Your task to perform on an android device: Open sound settings Image 0: 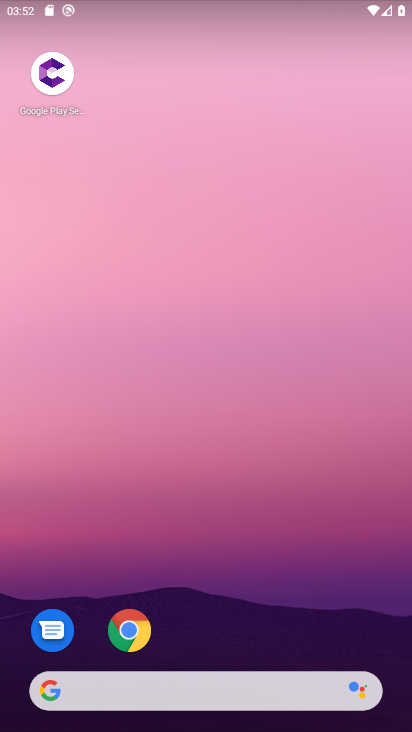
Step 0: drag from (206, 658) to (268, 244)
Your task to perform on an android device: Open sound settings Image 1: 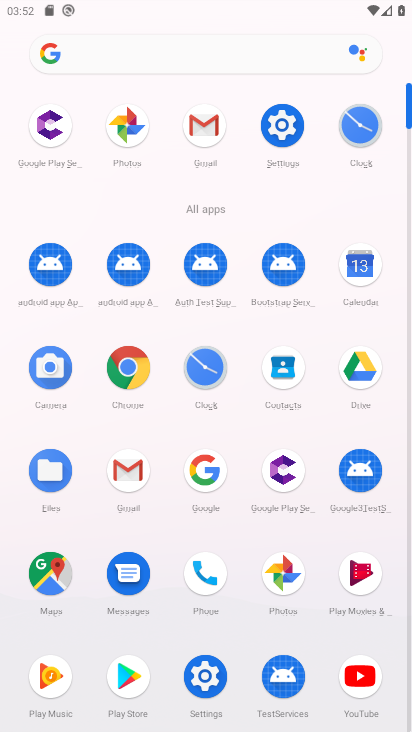
Step 1: click (290, 122)
Your task to perform on an android device: Open sound settings Image 2: 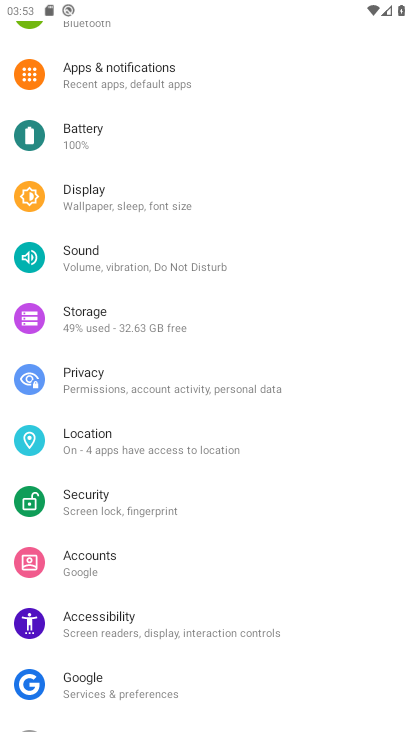
Step 2: click (93, 265)
Your task to perform on an android device: Open sound settings Image 3: 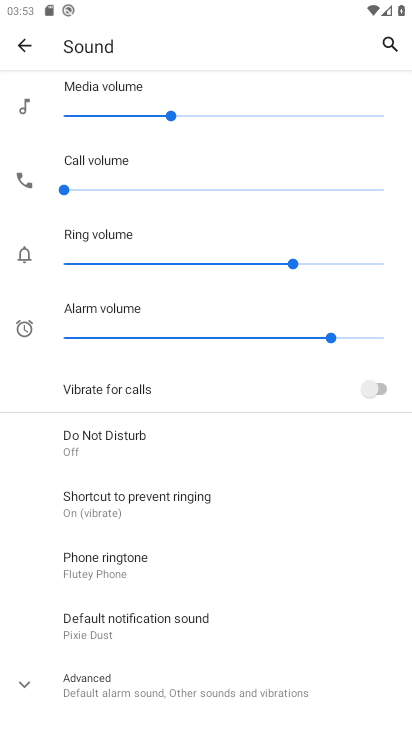
Step 3: task complete